Your task to perform on an android device: install app "Duolingo: language lessons" Image 0: 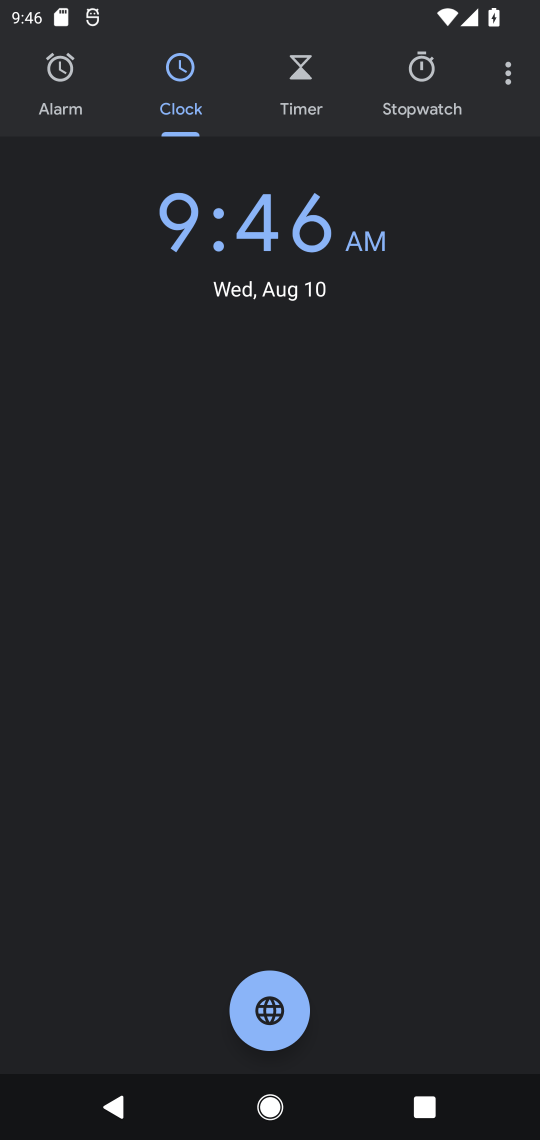
Step 0: press home button
Your task to perform on an android device: install app "Duolingo: language lessons" Image 1: 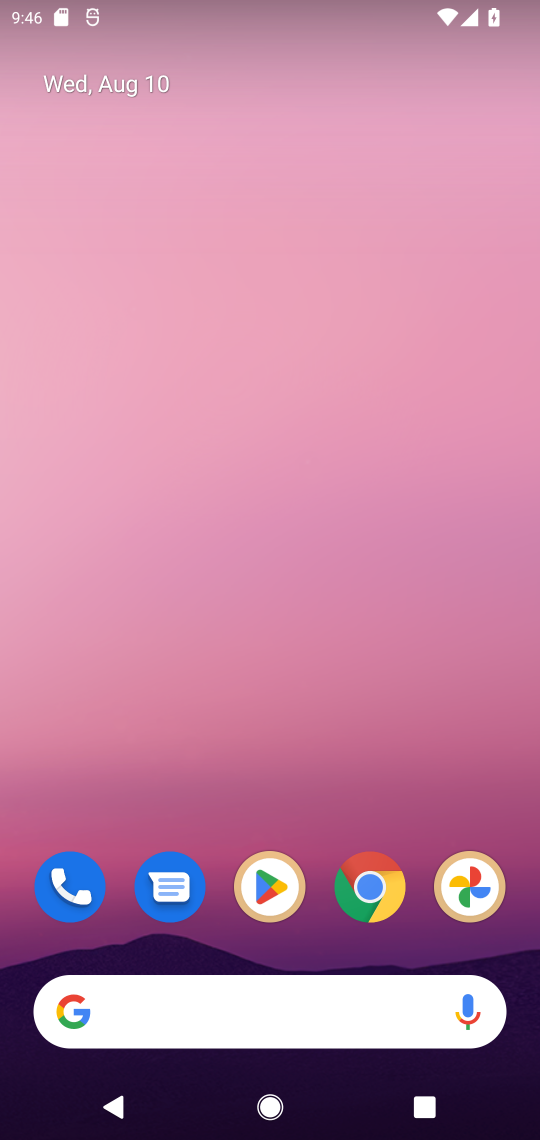
Step 1: click (265, 909)
Your task to perform on an android device: install app "Duolingo: language lessons" Image 2: 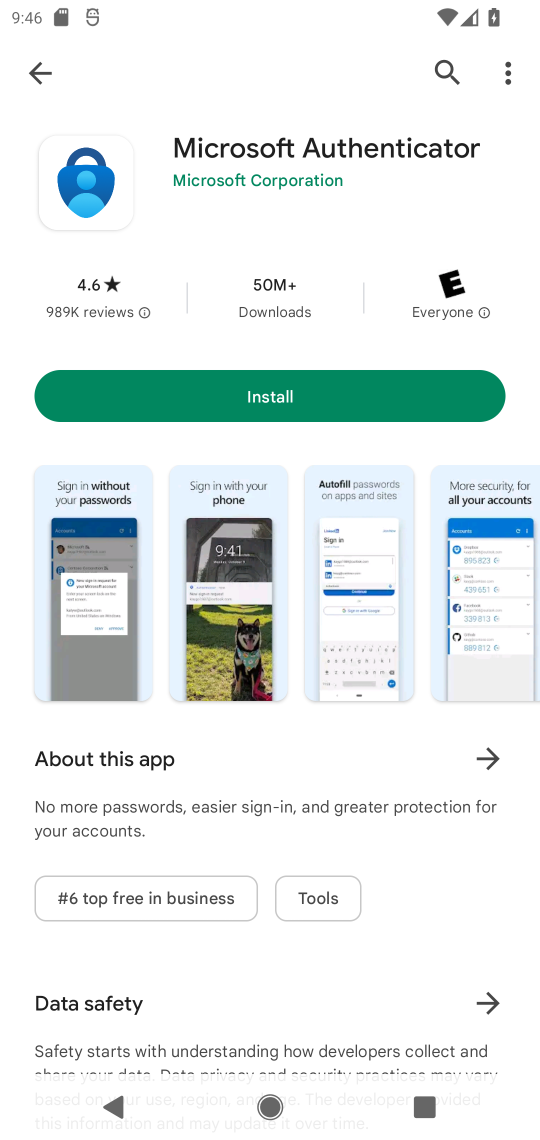
Step 2: click (446, 67)
Your task to perform on an android device: install app "Duolingo: language lessons" Image 3: 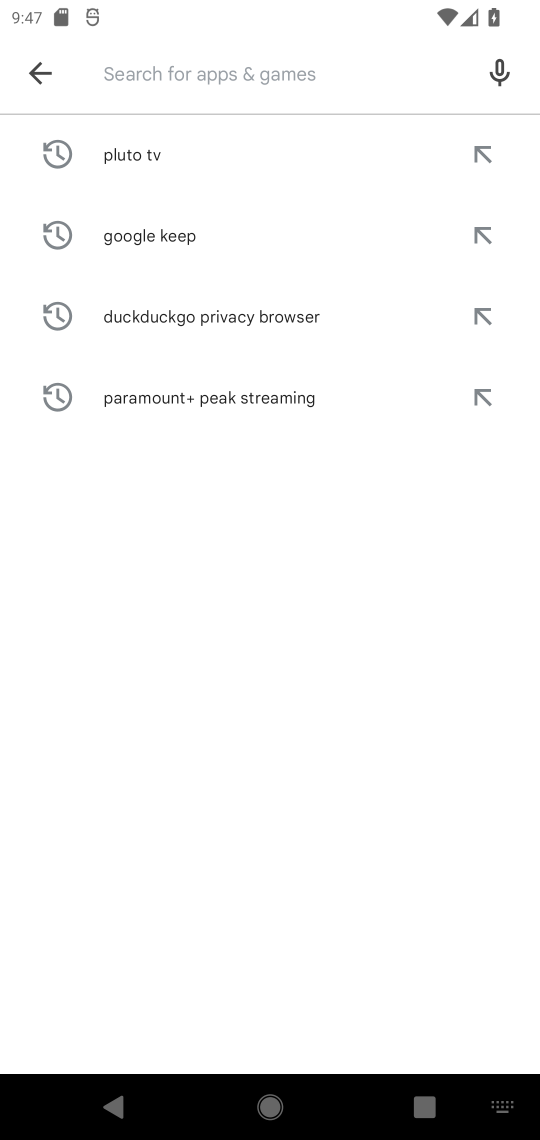
Step 3: type "Duolingo: language lessons"
Your task to perform on an android device: install app "Duolingo: language lessons" Image 4: 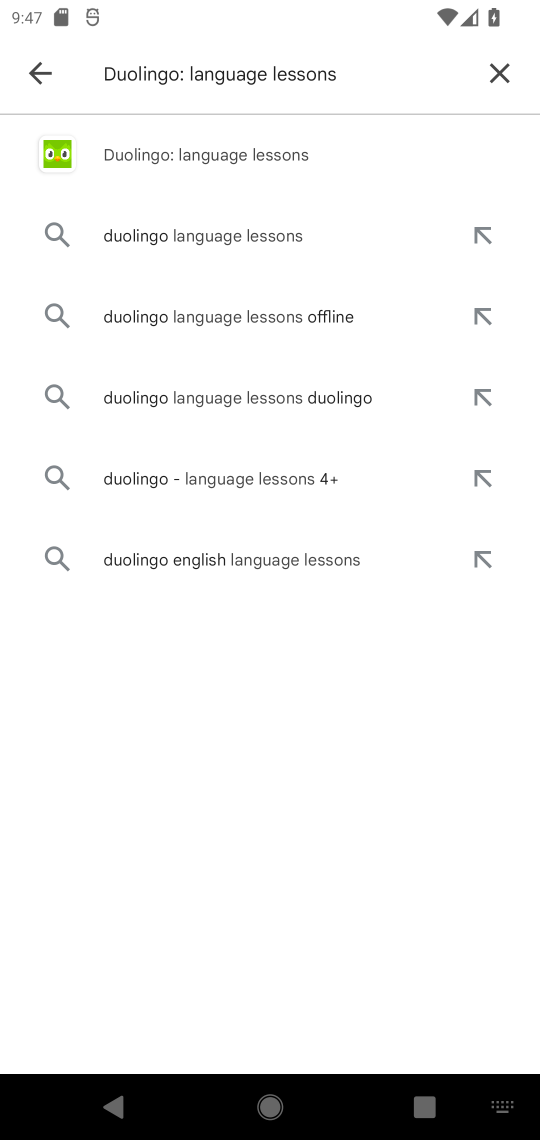
Step 4: click (234, 169)
Your task to perform on an android device: install app "Duolingo: language lessons" Image 5: 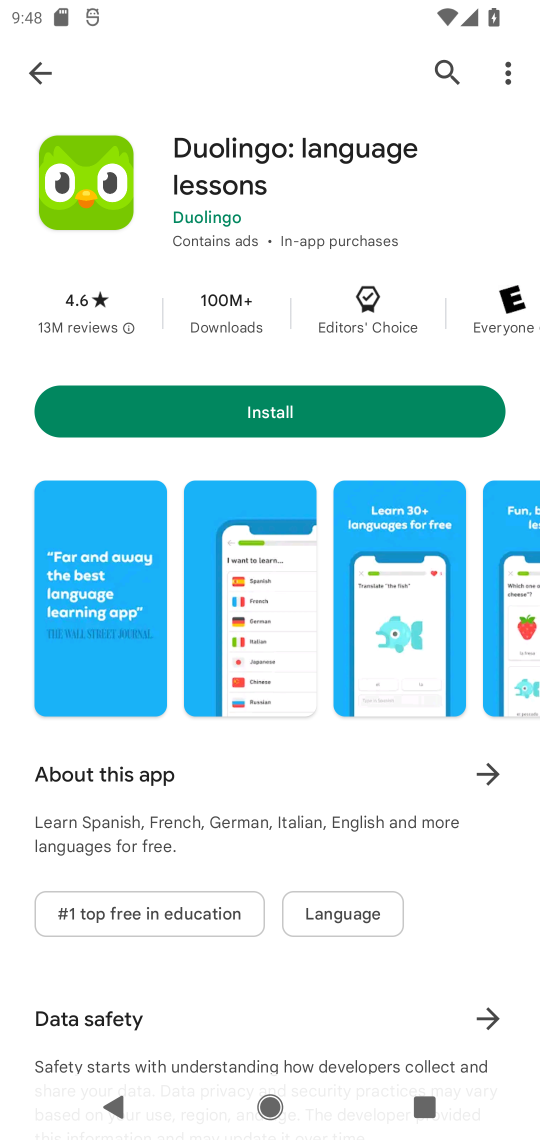
Step 5: click (221, 447)
Your task to perform on an android device: install app "Duolingo: language lessons" Image 6: 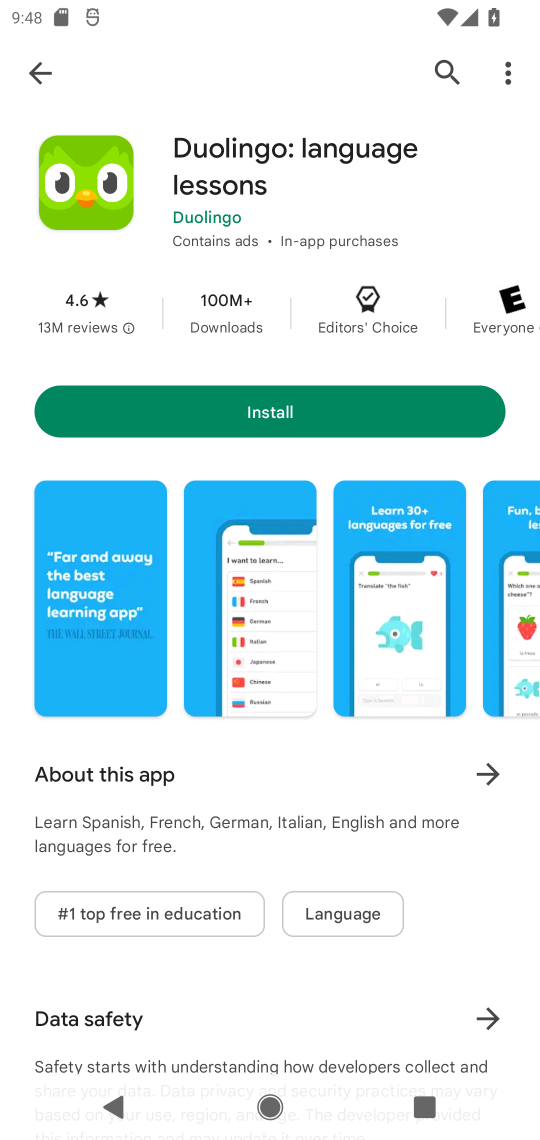
Step 6: click (213, 425)
Your task to perform on an android device: install app "Duolingo: language lessons" Image 7: 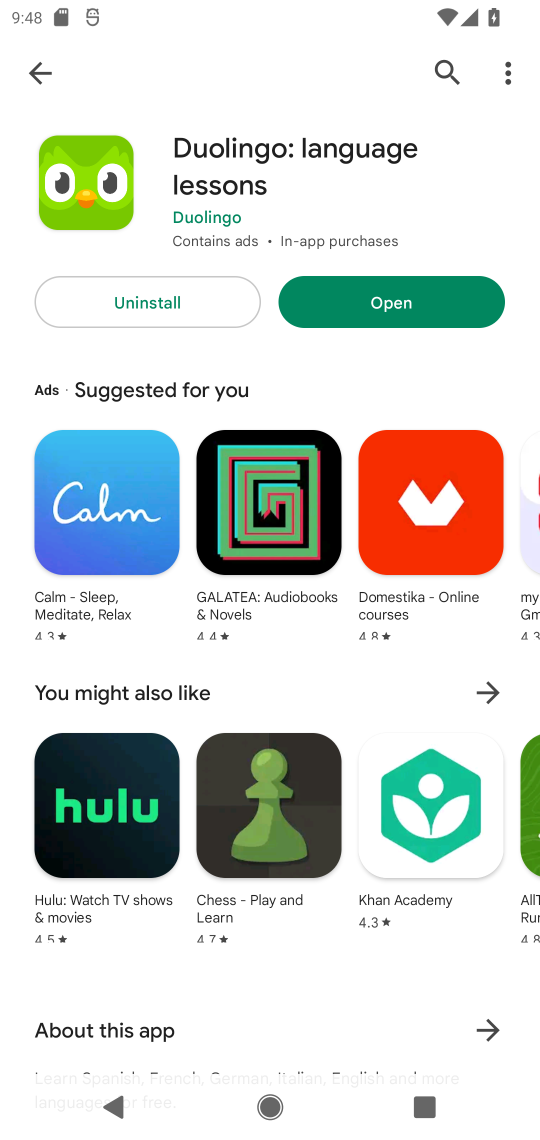
Step 7: task complete